Your task to perform on an android device: Open eBay Image 0: 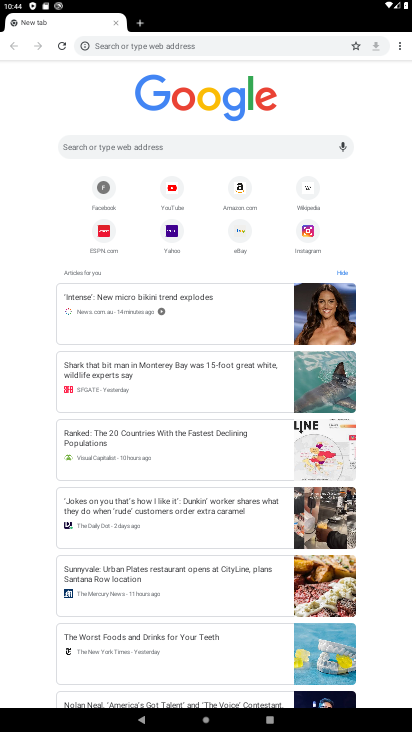
Step 0: click (180, 145)
Your task to perform on an android device: Open eBay Image 1: 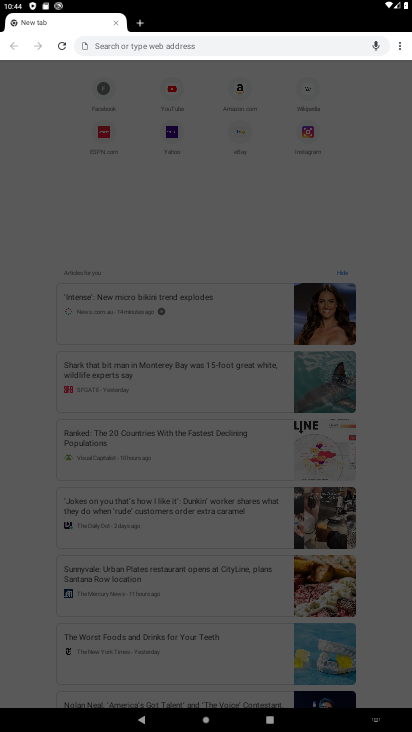
Step 1: type "eBay"
Your task to perform on an android device: Open eBay Image 2: 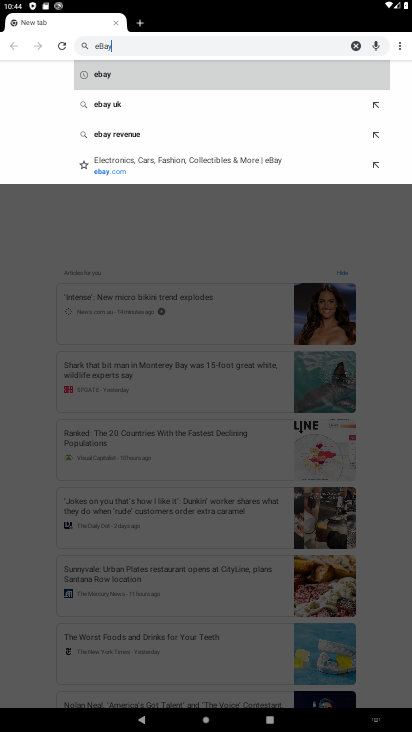
Step 2: click (136, 73)
Your task to perform on an android device: Open eBay Image 3: 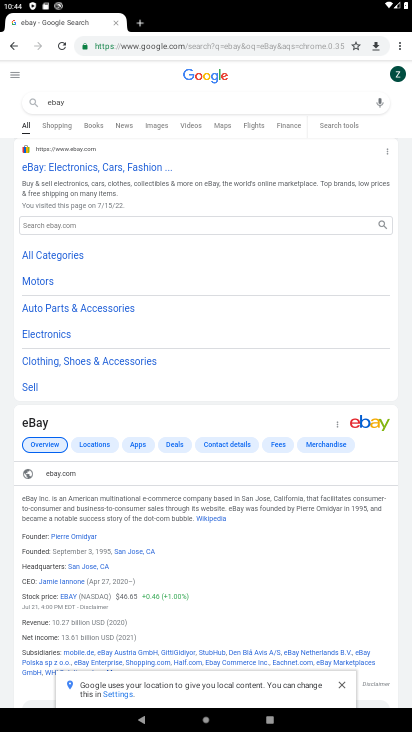
Step 3: task complete